Your task to perform on an android device: open wifi settings Image 0: 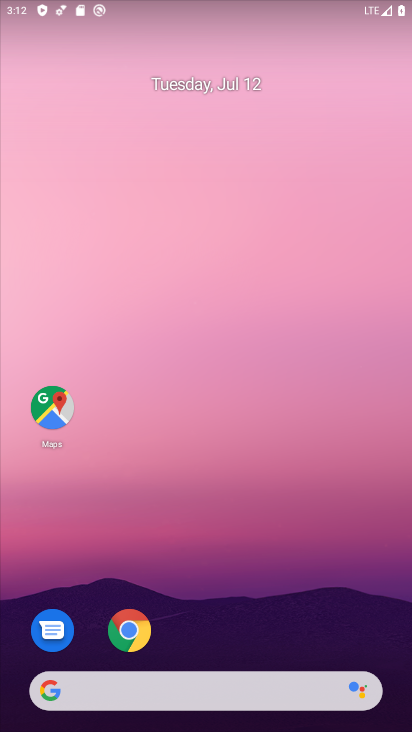
Step 0: drag from (228, 504) to (289, 41)
Your task to perform on an android device: open wifi settings Image 1: 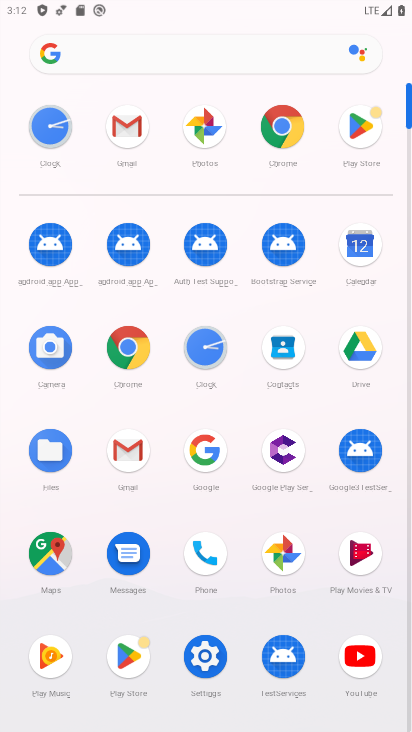
Step 1: click (207, 662)
Your task to perform on an android device: open wifi settings Image 2: 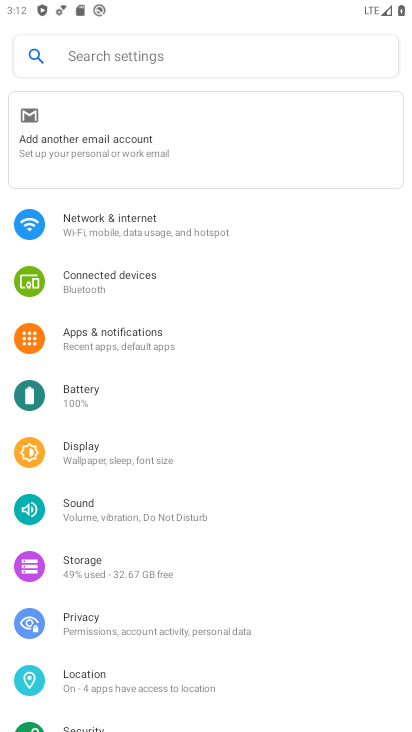
Step 2: click (145, 238)
Your task to perform on an android device: open wifi settings Image 3: 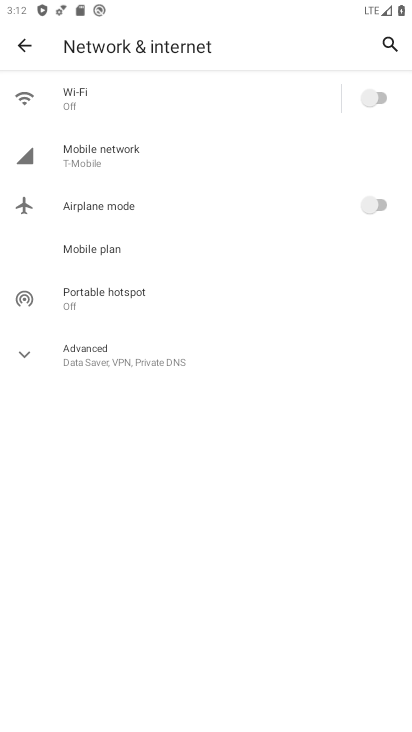
Step 3: click (92, 91)
Your task to perform on an android device: open wifi settings Image 4: 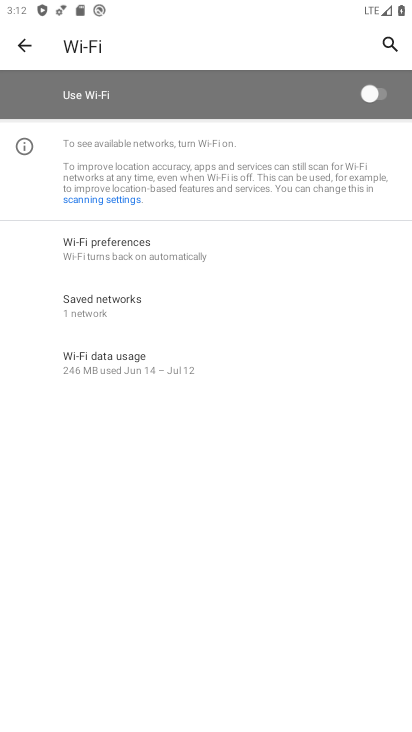
Step 4: task complete